Your task to perform on an android device: Open Chrome and go to settings Image 0: 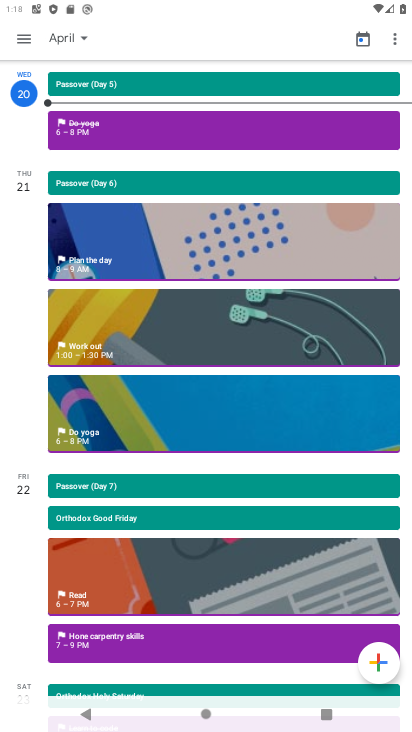
Step 0: press home button
Your task to perform on an android device: Open Chrome and go to settings Image 1: 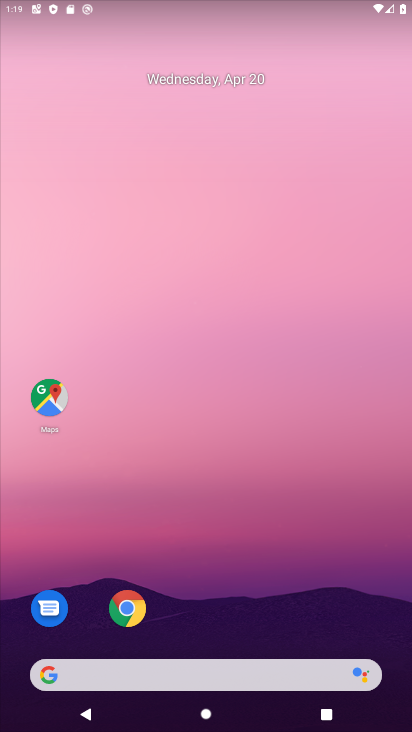
Step 1: click (128, 607)
Your task to perform on an android device: Open Chrome and go to settings Image 2: 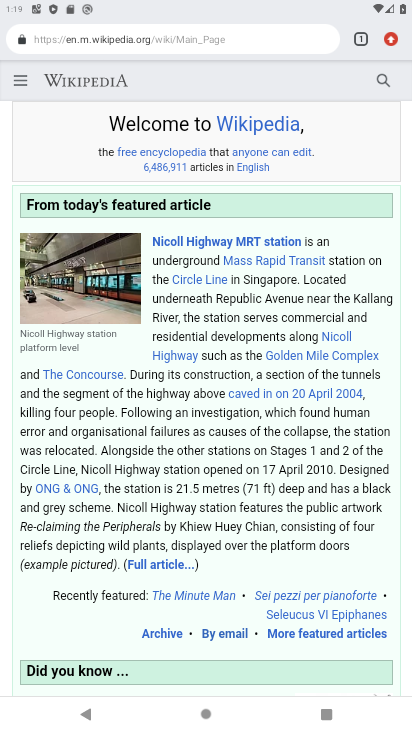
Step 2: click (390, 43)
Your task to perform on an android device: Open Chrome and go to settings Image 3: 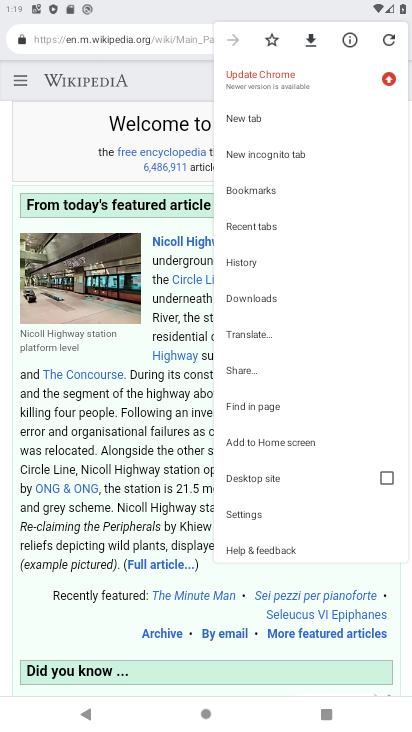
Step 3: click (249, 513)
Your task to perform on an android device: Open Chrome and go to settings Image 4: 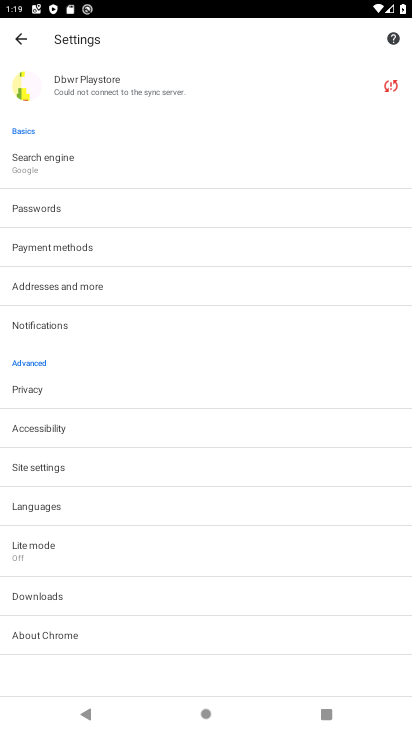
Step 4: task complete